Your task to perform on an android device: delete a single message in the gmail app Image 0: 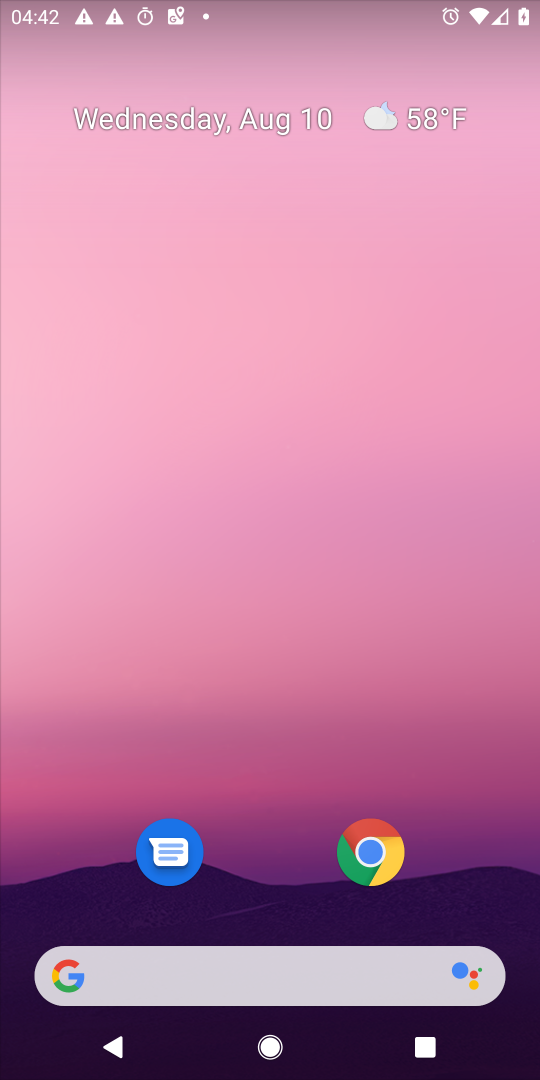
Step 0: drag from (289, 902) to (284, 462)
Your task to perform on an android device: delete a single message in the gmail app Image 1: 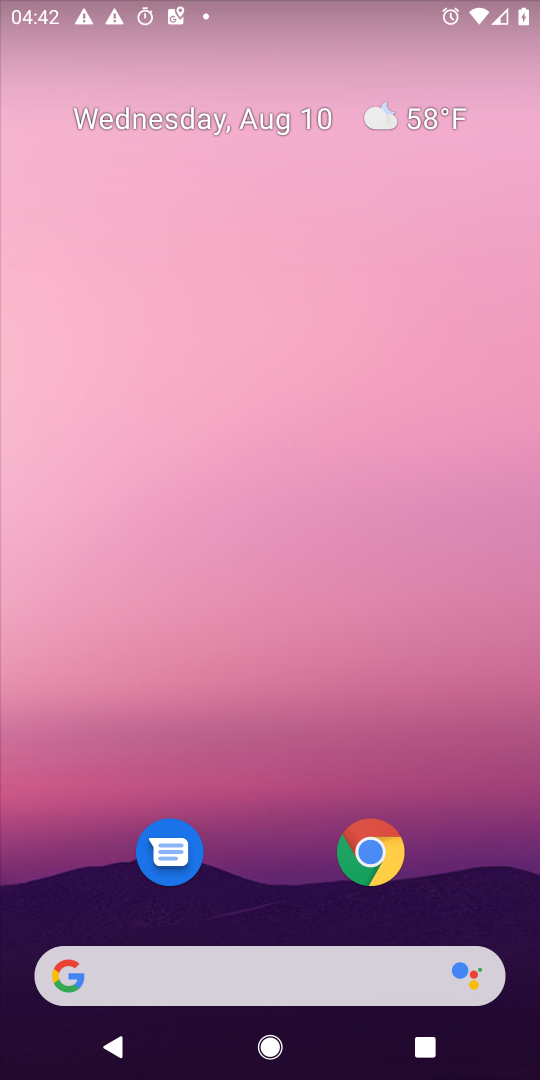
Step 1: drag from (260, 886) to (115, 209)
Your task to perform on an android device: delete a single message in the gmail app Image 2: 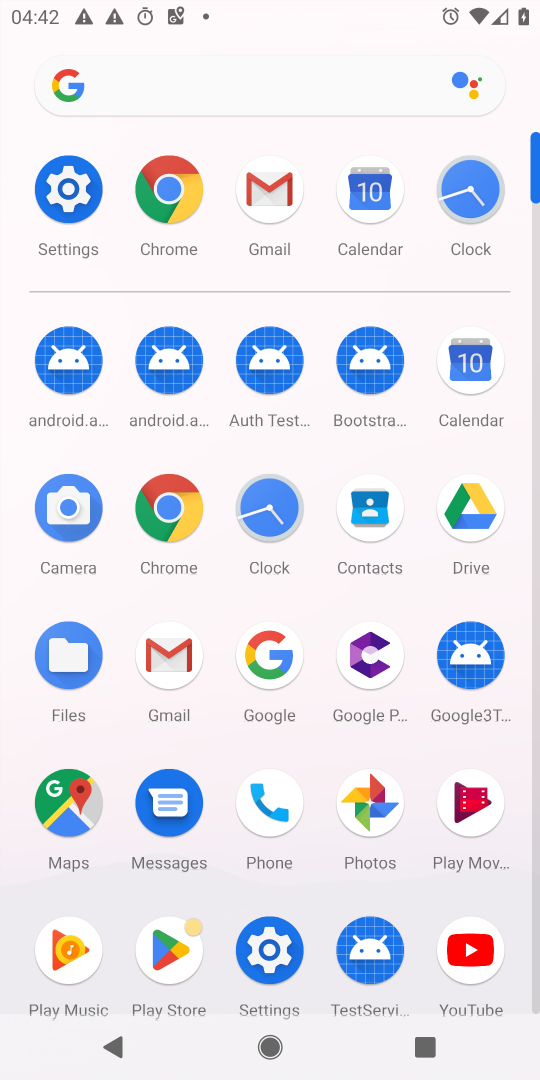
Step 2: click (166, 648)
Your task to perform on an android device: delete a single message in the gmail app Image 3: 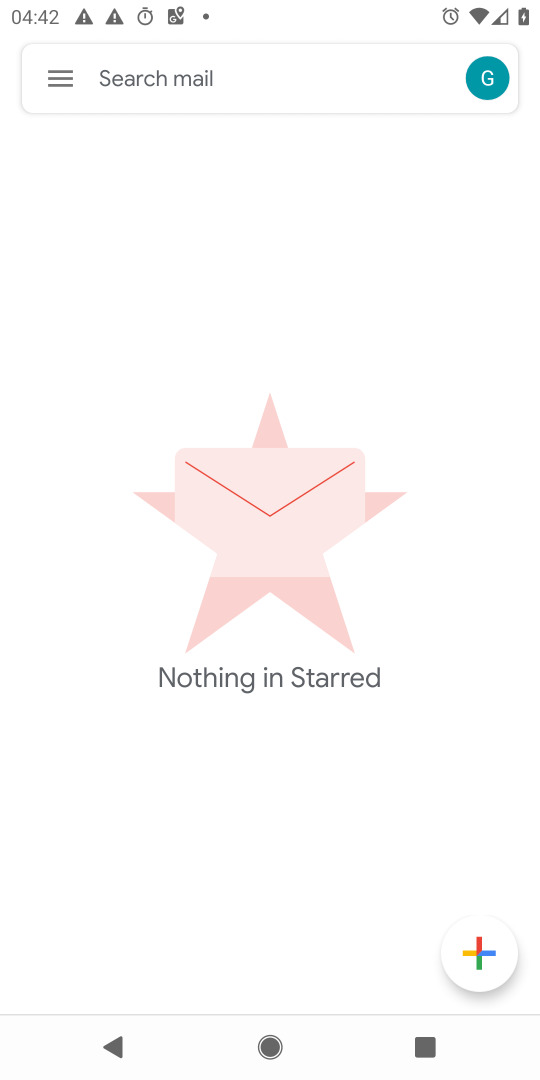
Step 3: click (53, 75)
Your task to perform on an android device: delete a single message in the gmail app Image 4: 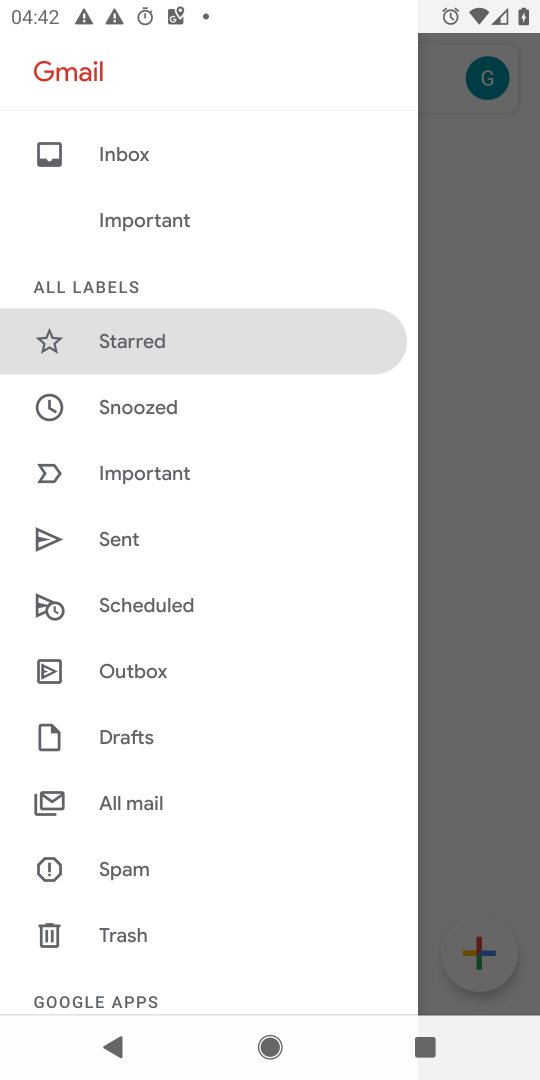
Step 4: click (109, 795)
Your task to perform on an android device: delete a single message in the gmail app Image 5: 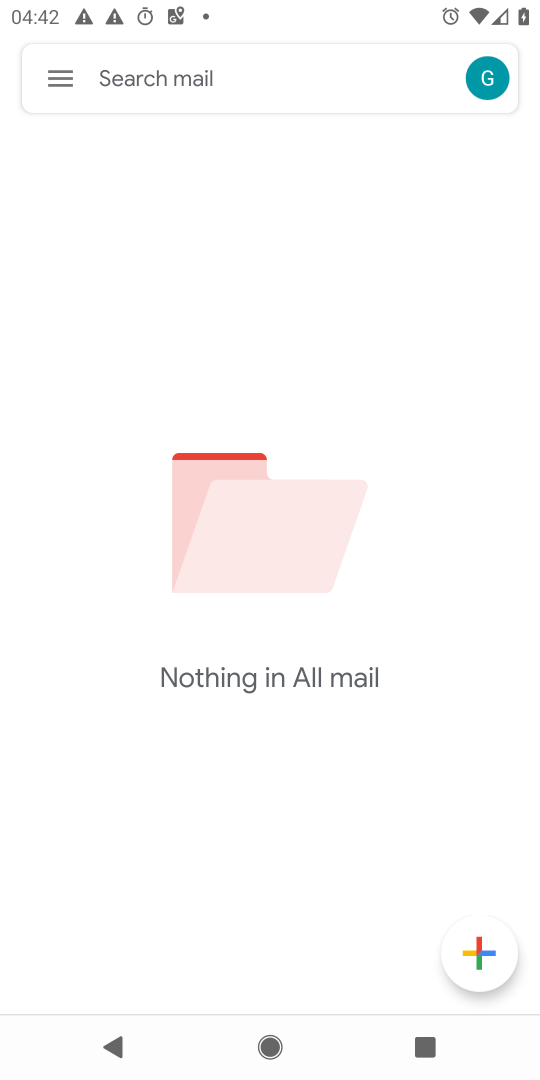
Step 5: task complete